Your task to perform on an android device: Open the map Image 0: 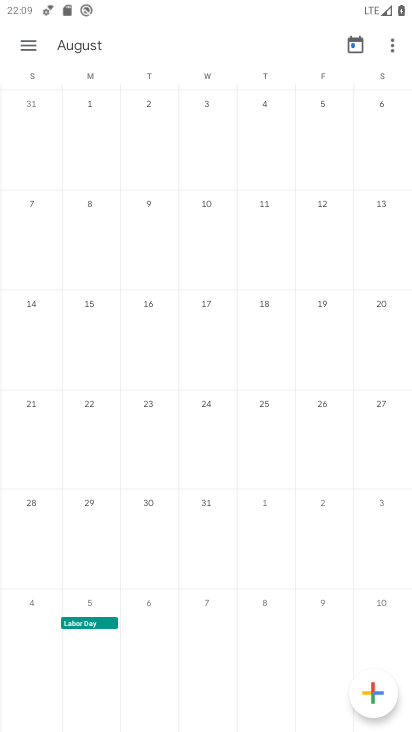
Step 0: press home button
Your task to perform on an android device: Open the map Image 1: 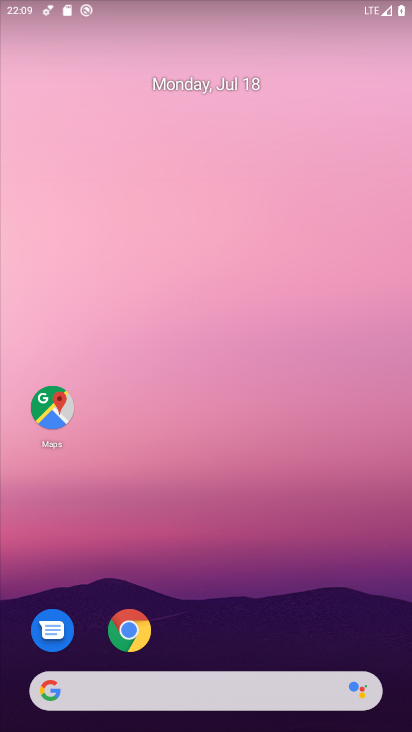
Step 1: click (56, 423)
Your task to perform on an android device: Open the map Image 2: 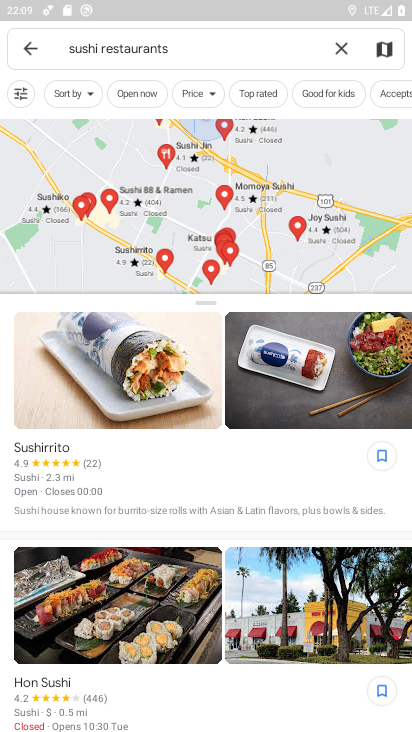
Step 2: task complete